Your task to perform on an android device: turn off priority inbox in the gmail app Image 0: 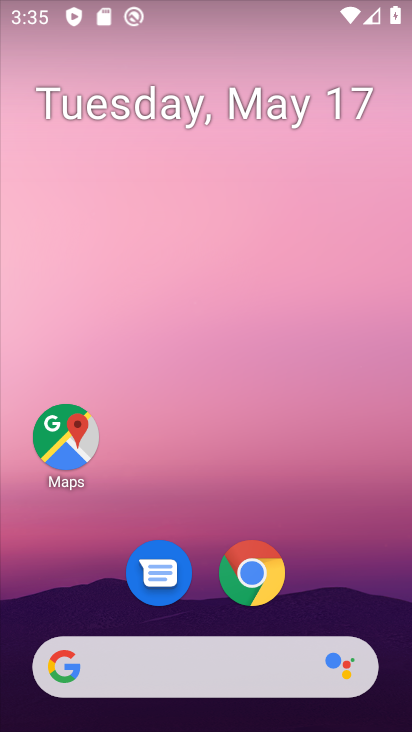
Step 0: drag from (338, 596) to (247, 118)
Your task to perform on an android device: turn off priority inbox in the gmail app Image 1: 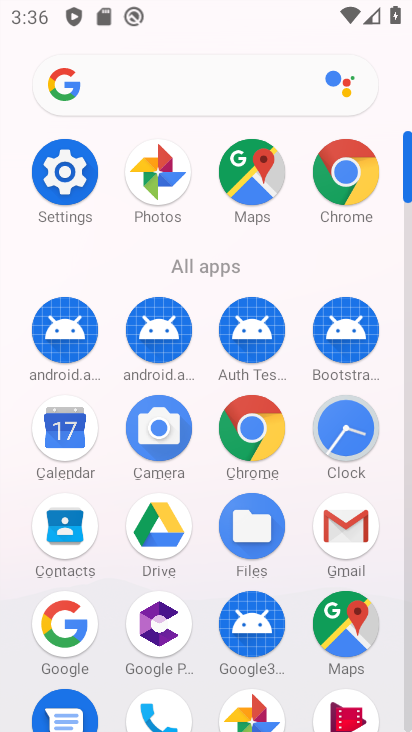
Step 1: click (355, 533)
Your task to perform on an android device: turn off priority inbox in the gmail app Image 2: 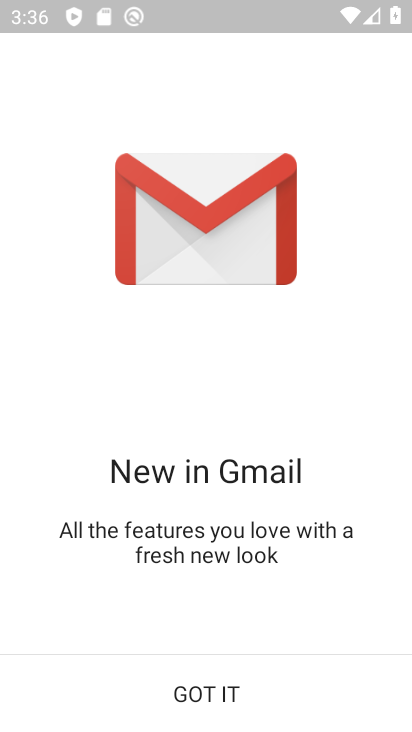
Step 2: click (239, 700)
Your task to perform on an android device: turn off priority inbox in the gmail app Image 3: 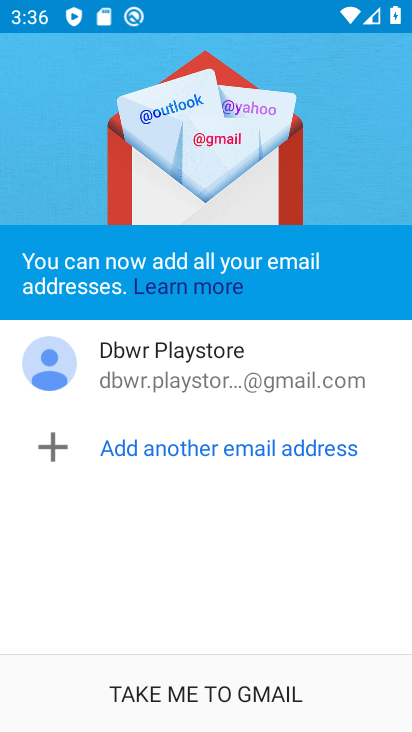
Step 3: click (239, 700)
Your task to perform on an android device: turn off priority inbox in the gmail app Image 4: 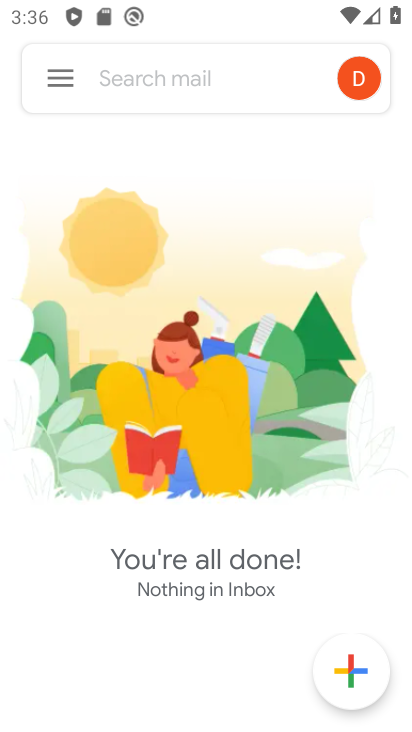
Step 4: click (66, 91)
Your task to perform on an android device: turn off priority inbox in the gmail app Image 5: 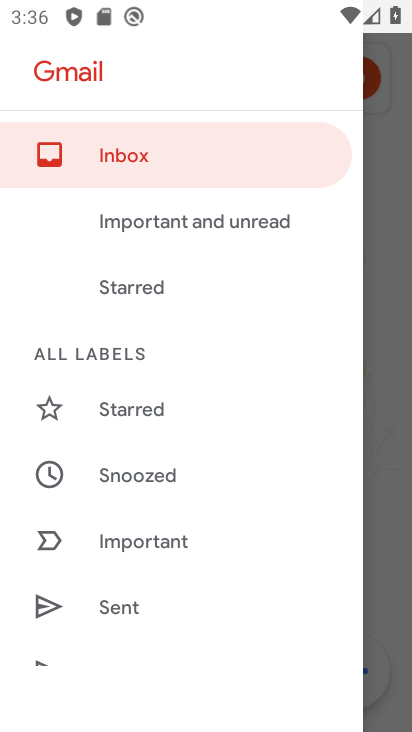
Step 5: drag from (254, 644) to (241, 213)
Your task to perform on an android device: turn off priority inbox in the gmail app Image 6: 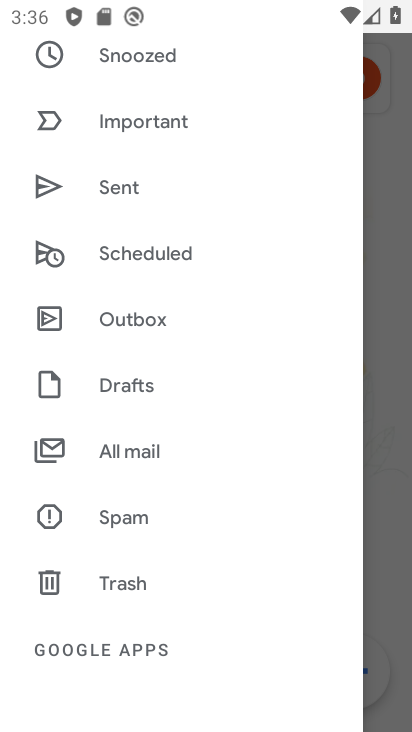
Step 6: drag from (218, 609) to (140, 205)
Your task to perform on an android device: turn off priority inbox in the gmail app Image 7: 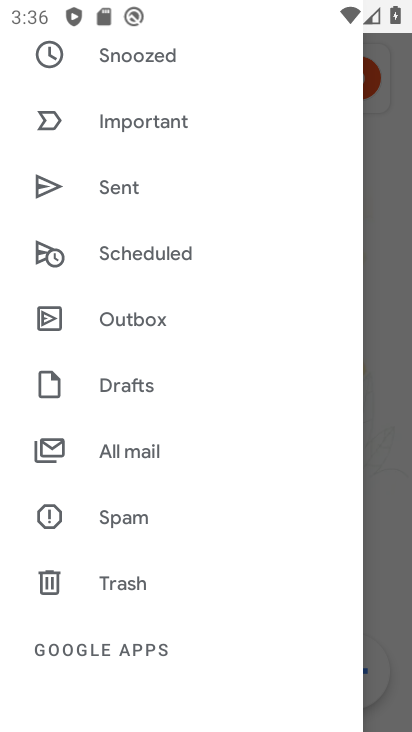
Step 7: drag from (127, 561) to (152, 283)
Your task to perform on an android device: turn off priority inbox in the gmail app Image 8: 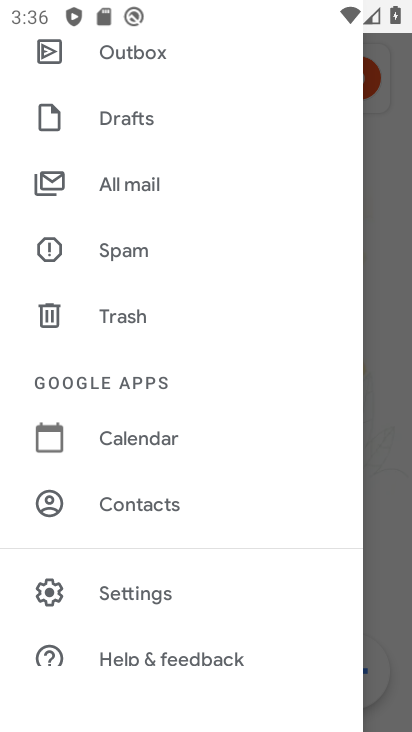
Step 8: click (175, 585)
Your task to perform on an android device: turn off priority inbox in the gmail app Image 9: 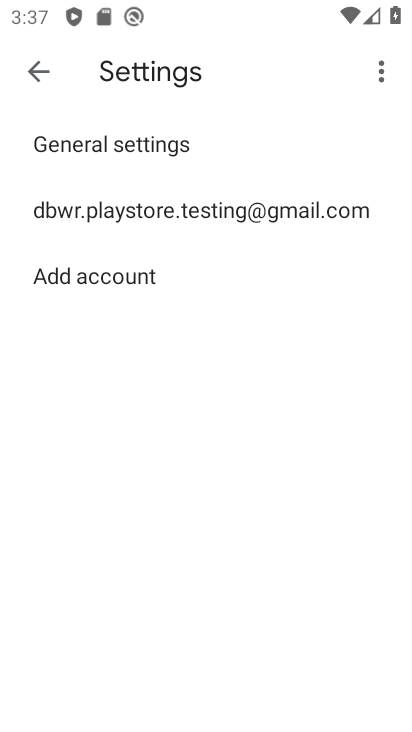
Step 9: click (279, 221)
Your task to perform on an android device: turn off priority inbox in the gmail app Image 10: 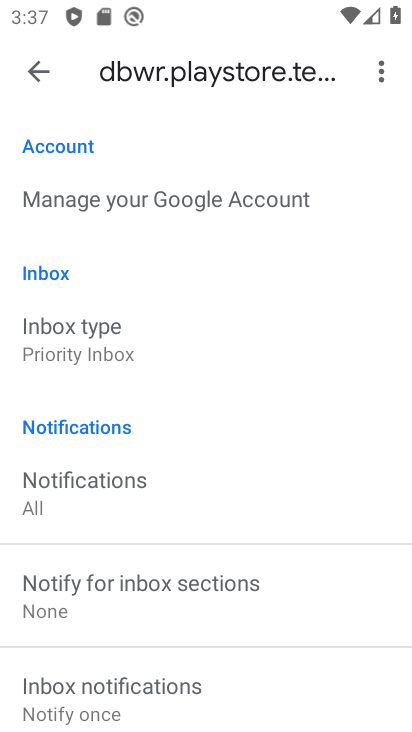
Step 10: click (215, 346)
Your task to perform on an android device: turn off priority inbox in the gmail app Image 11: 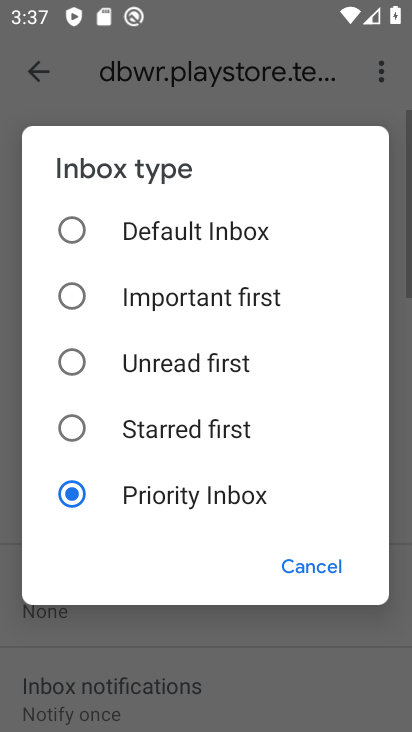
Step 11: click (206, 307)
Your task to perform on an android device: turn off priority inbox in the gmail app Image 12: 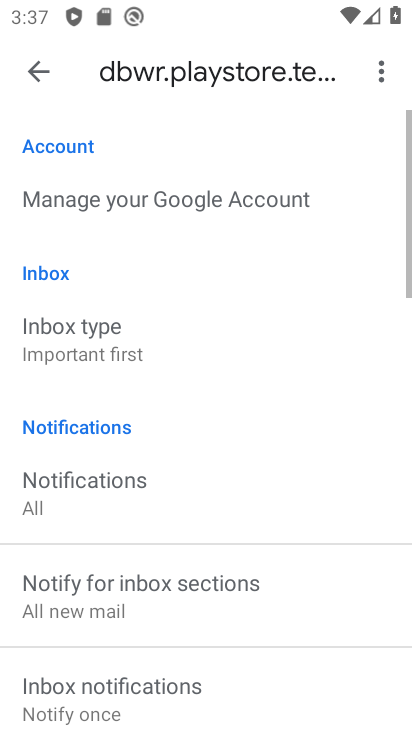
Step 12: task complete